Your task to perform on an android device: Is it going to rain tomorrow? Image 0: 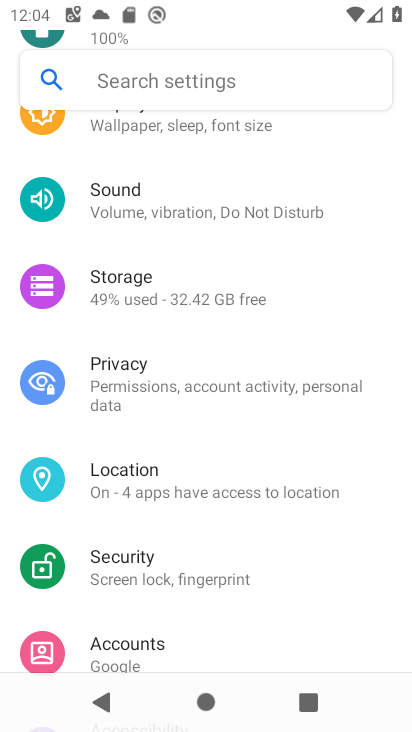
Step 0: press home button
Your task to perform on an android device: Is it going to rain tomorrow? Image 1: 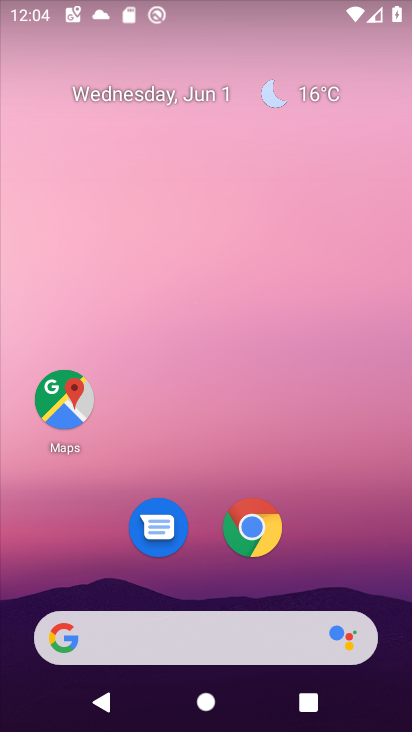
Step 1: click (318, 94)
Your task to perform on an android device: Is it going to rain tomorrow? Image 2: 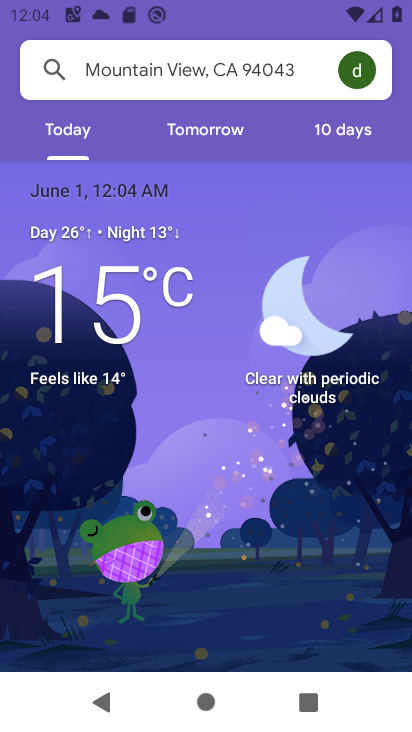
Step 2: click (187, 132)
Your task to perform on an android device: Is it going to rain tomorrow? Image 3: 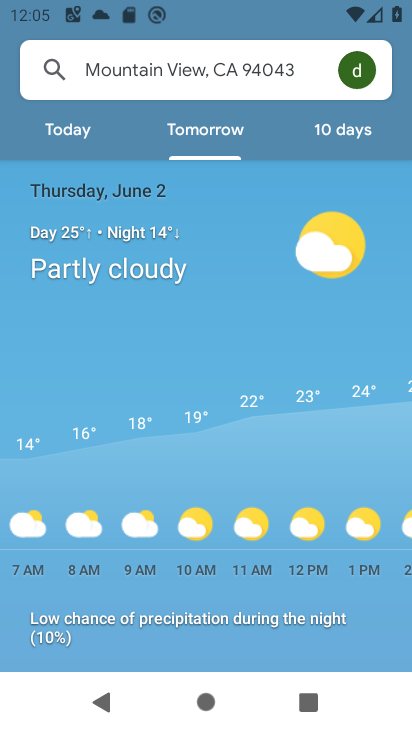
Step 3: task complete